Your task to perform on an android device: change alarm snooze length Image 0: 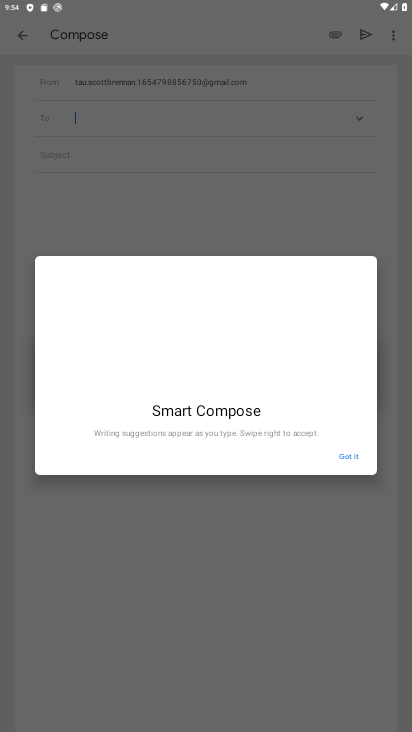
Step 0: drag from (377, 688) to (303, 255)
Your task to perform on an android device: change alarm snooze length Image 1: 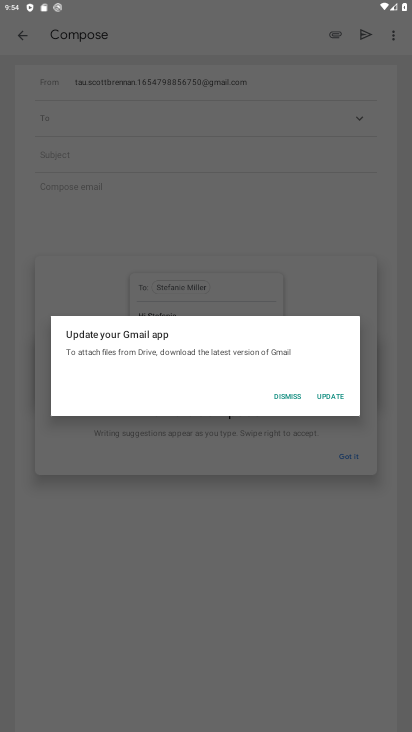
Step 1: press home button
Your task to perform on an android device: change alarm snooze length Image 2: 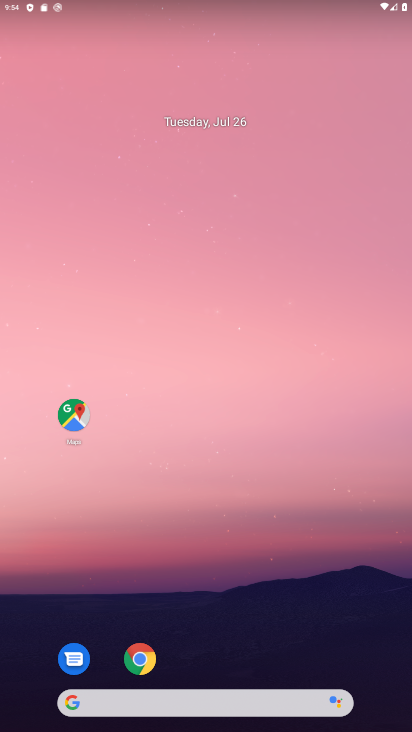
Step 2: drag from (362, 594) to (299, 45)
Your task to perform on an android device: change alarm snooze length Image 3: 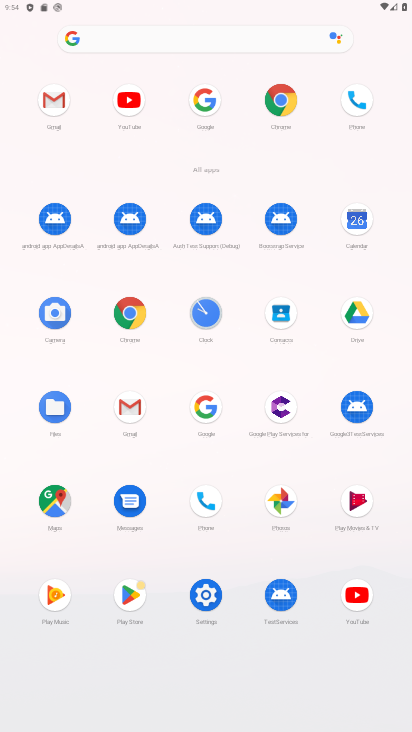
Step 3: click (204, 310)
Your task to perform on an android device: change alarm snooze length Image 4: 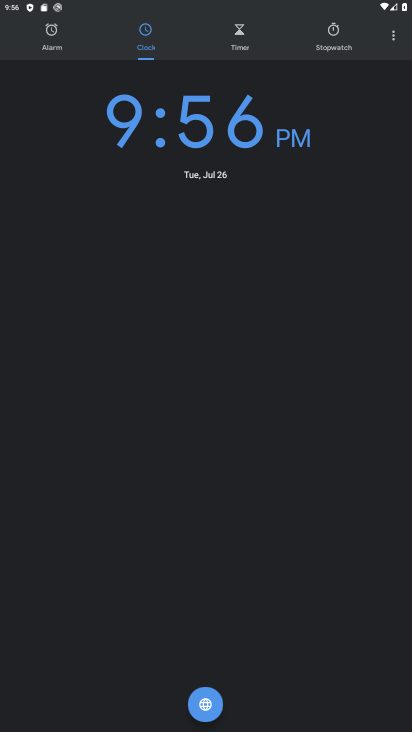
Step 4: click (393, 43)
Your task to perform on an android device: change alarm snooze length Image 5: 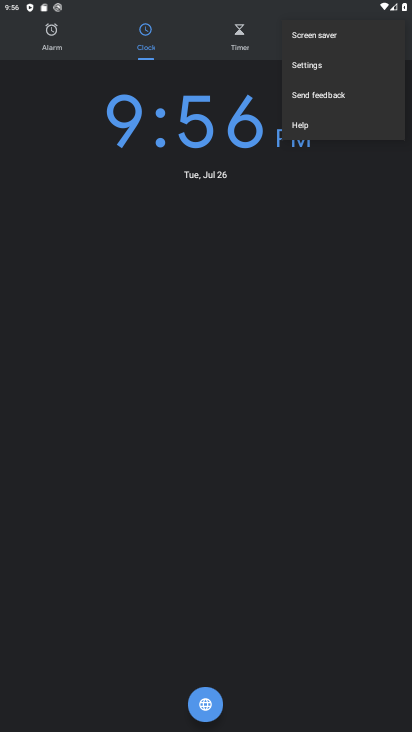
Step 5: click (317, 68)
Your task to perform on an android device: change alarm snooze length Image 6: 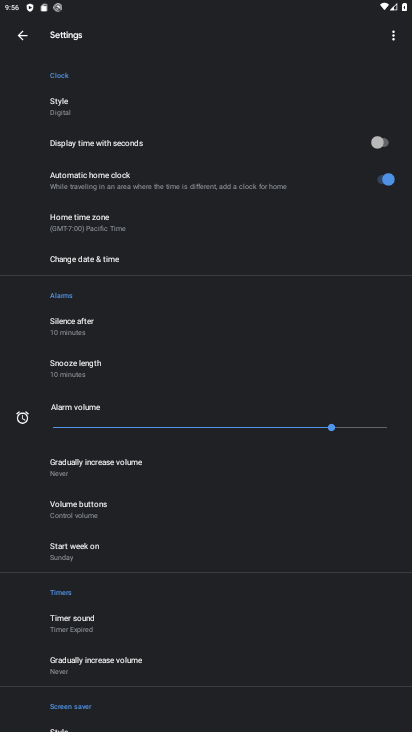
Step 6: click (68, 370)
Your task to perform on an android device: change alarm snooze length Image 7: 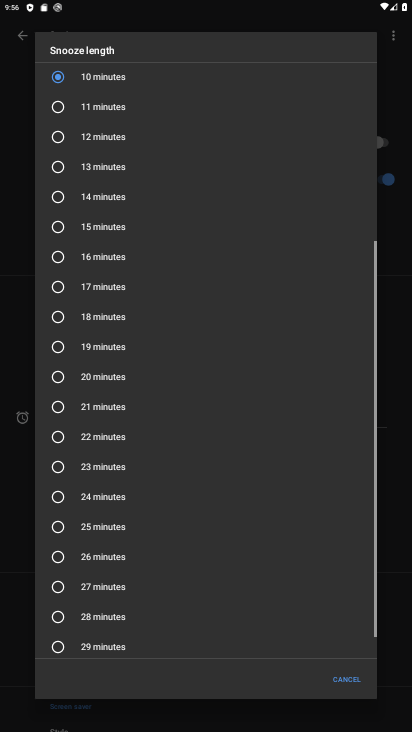
Step 7: click (53, 315)
Your task to perform on an android device: change alarm snooze length Image 8: 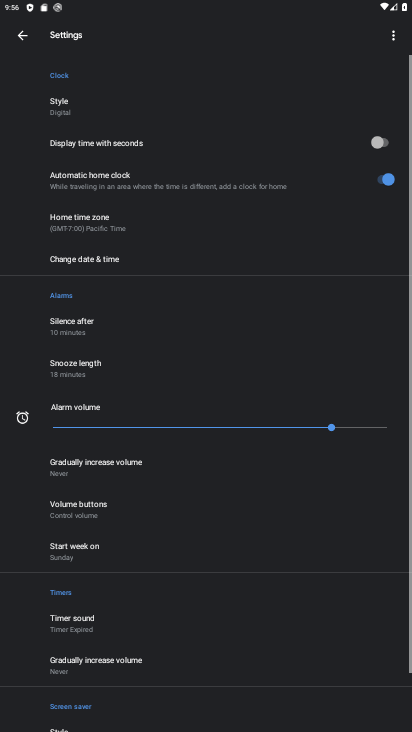
Step 8: task complete